Your task to perform on an android device: turn off sleep mode Image 0: 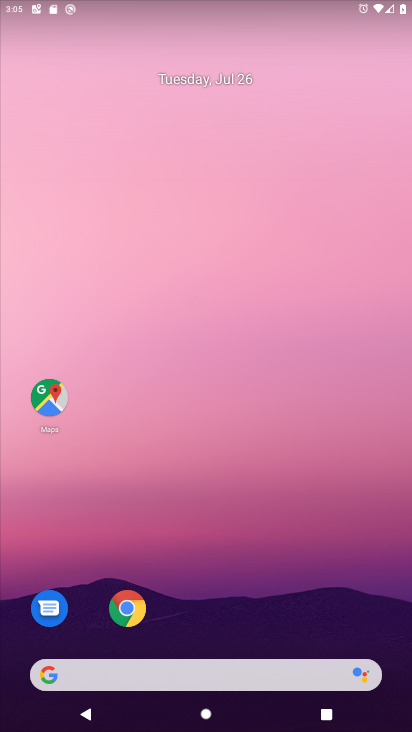
Step 0: drag from (252, 616) to (235, 201)
Your task to perform on an android device: turn off sleep mode Image 1: 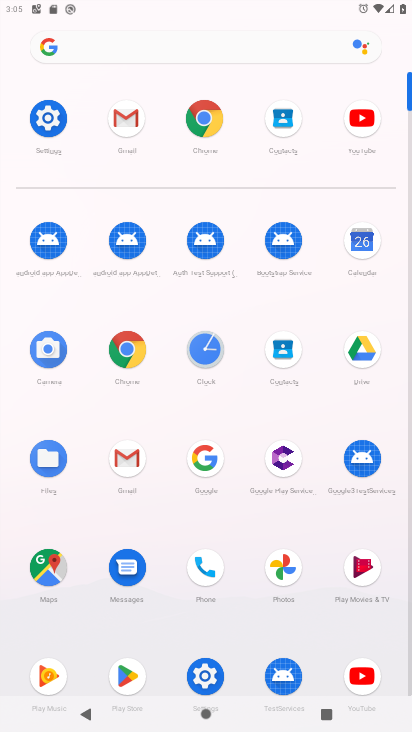
Step 1: click (54, 118)
Your task to perform on an android device: turn off sleep mode Image 2: 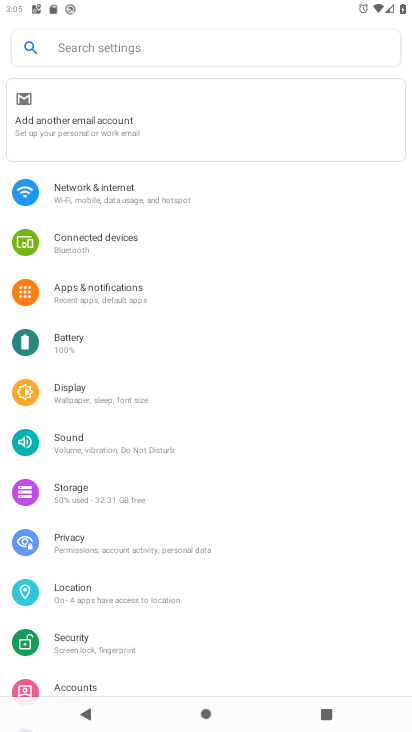
Step 2: click (108, 402)
Your task to perform on an android device: turn off sleep mode Image 3: 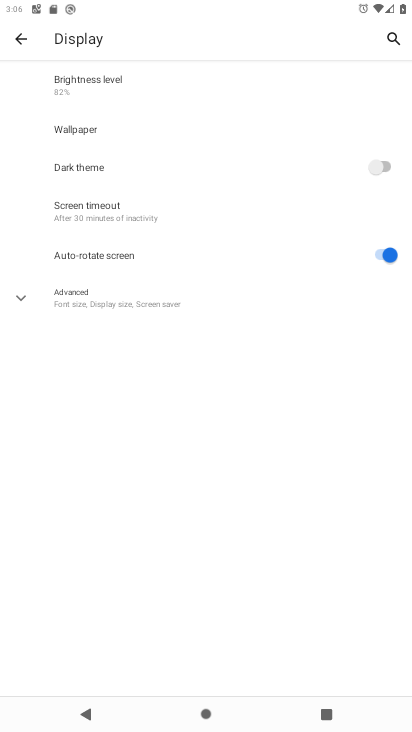
Step 3: click (168, 298)
Your task to perform on an android device: turn off sleep mode Image 4: 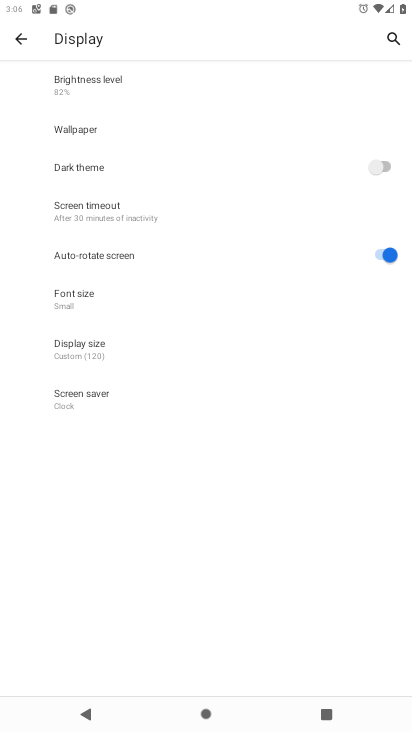
Step 4: task complete